Your task to perform on an android device: Go to location settings Image 0: 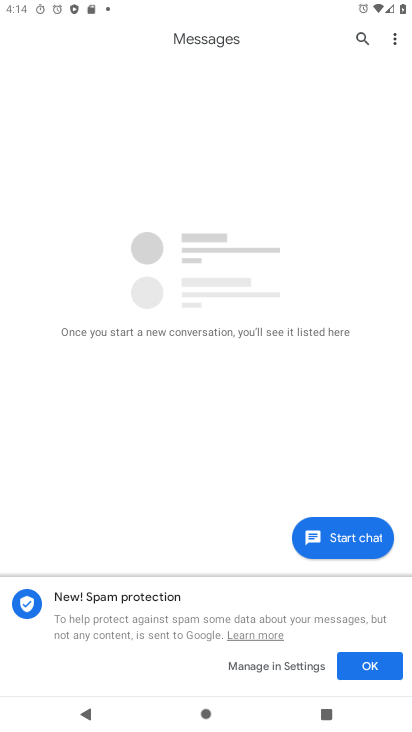
Step 0: press home button
Your task to perform on an android device: Go to location settings Image 1: 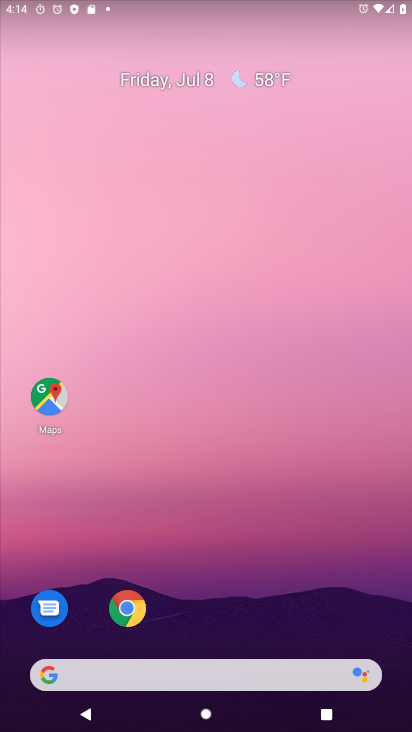
Step 1: drag from (279, 596) to (177, 0)
Your task to perform on an android device: Go to location settings Image 2: 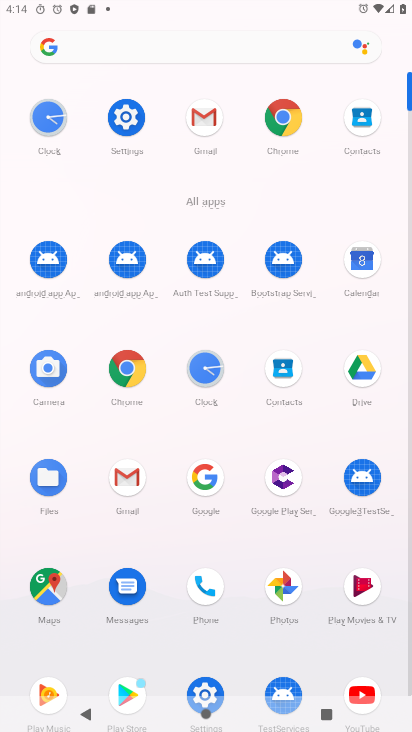
Step 2: click (124, 130)
Your task to perform on an android device: Go to location settings Image 3: 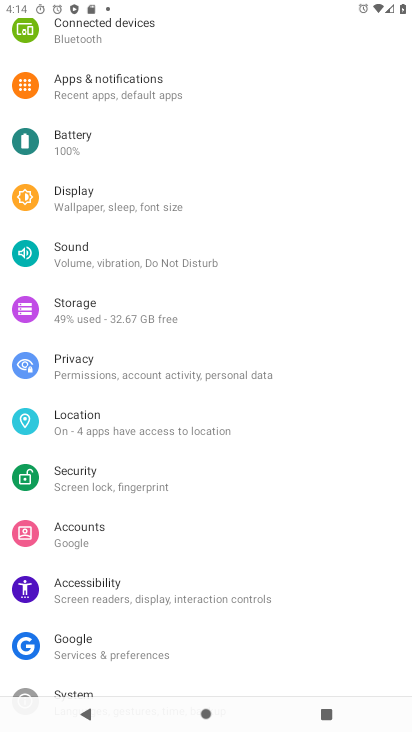
Step 3: click (104, 410)
Your task to perform on an android device: Go to location settings Image 4: 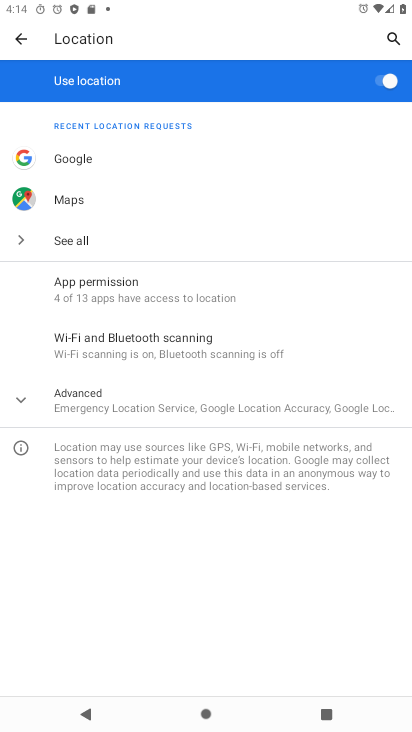
Step 4: task complete